Your task to perform on an android device: Go to internet settings Image 0: 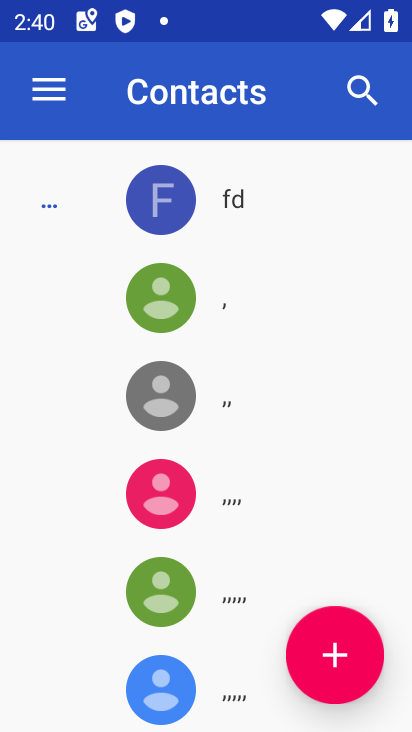
Step 0: press back button
Your task to perform on an android device: Go to internet settings Image 1: 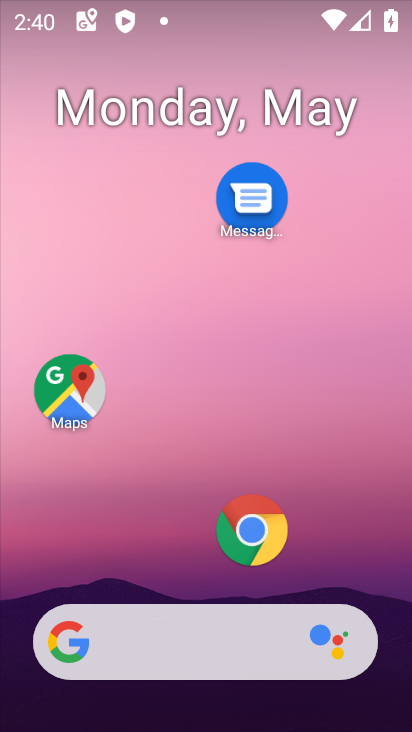
Step 1: drag from (194, 540) to (243, 103)
Your task to perform on an android device: Go to internet settings Image 2: 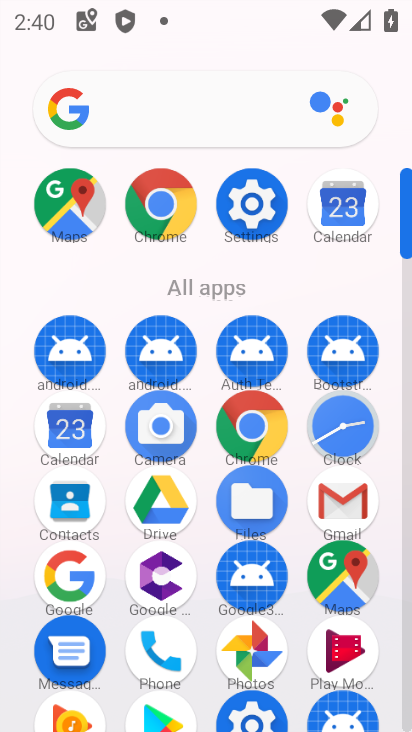
Step 2: click (249, 205)
Your task to perform on an android device: Go to internet settings Image 3: 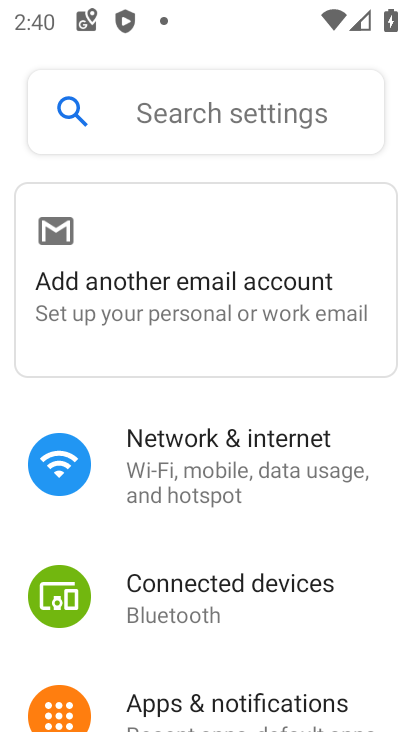
Step 3: click (227, 453)
Your task to perform on an android device: Go to internet settings Image 4: 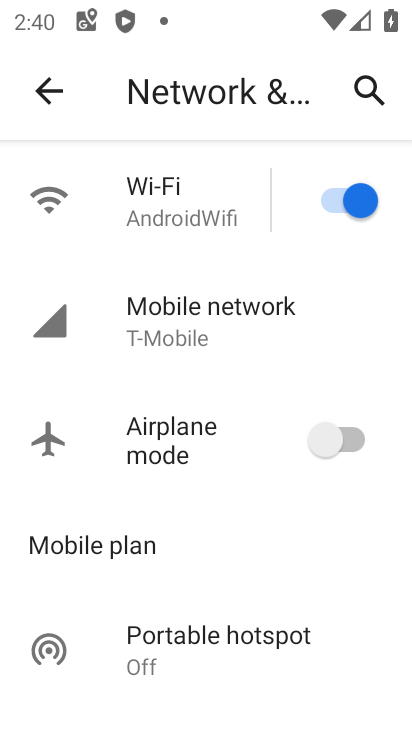
Step 4: task complete